Your task to perform on an android device: Go to network settings Image 0: 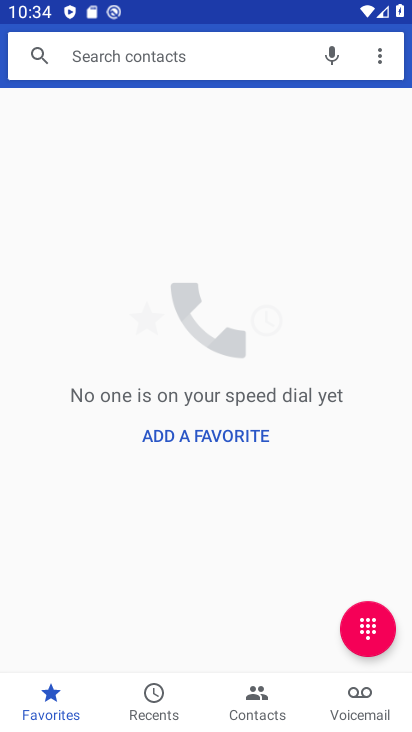
Step 0: press home button
Your task to perform on an android device: Go to network settings Image 1: 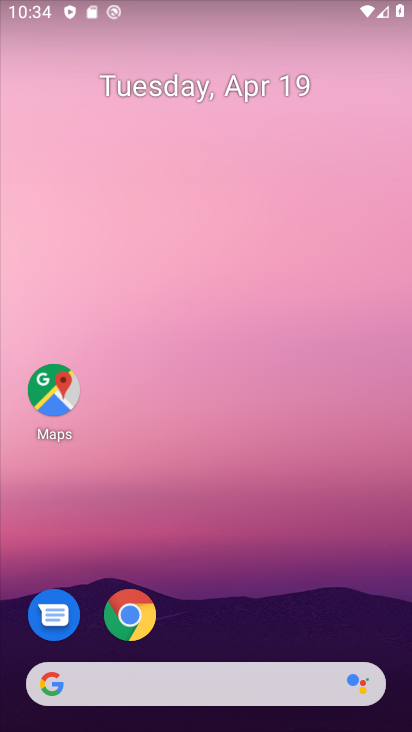
Step 1: drag from (198, 660) to (283, 195)
Your task to perform on an android device: Go to network settings Image 2: 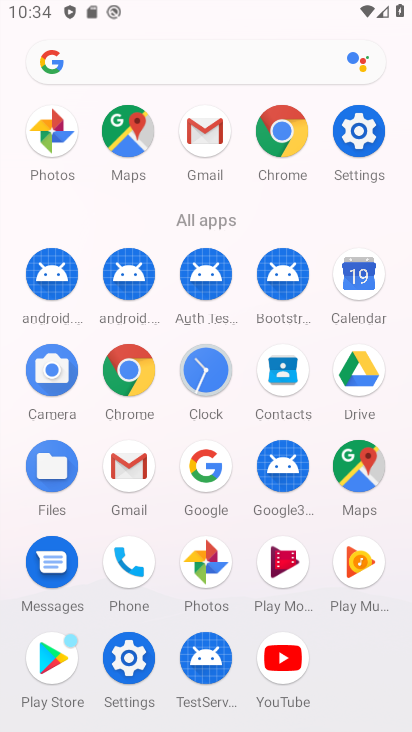
Step 2: click (366, 126)
Your task to perform on an android device: Go to network settings Image 3: 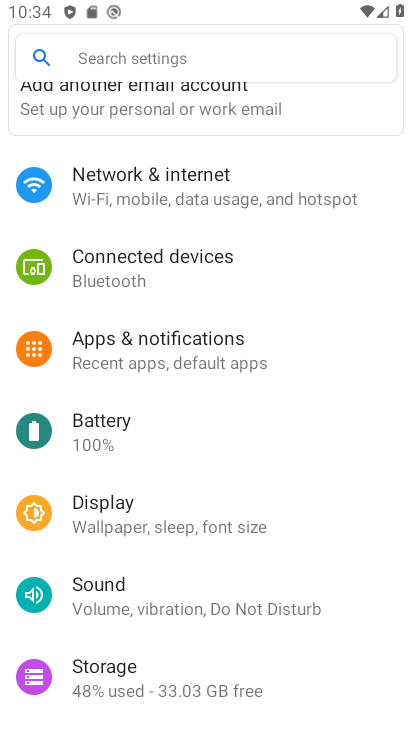
Step 3: click (264, 181)
Your task to perform on an android device: Go to network settings Image 4: 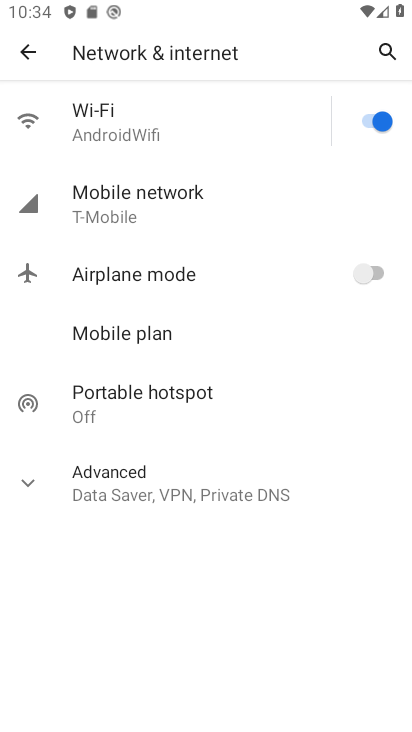
Step 4: click (73, 100)
Your task to perform on an android device: Go to network settings Image 5: 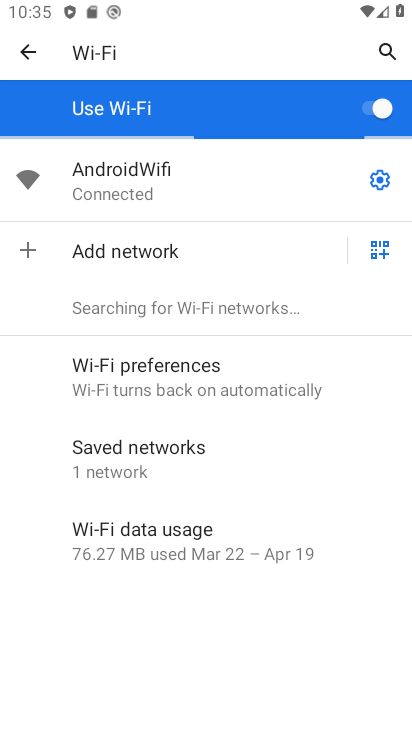
Step 5: task complete